Your task to perform on an android device: change text size in settings app Image 0: 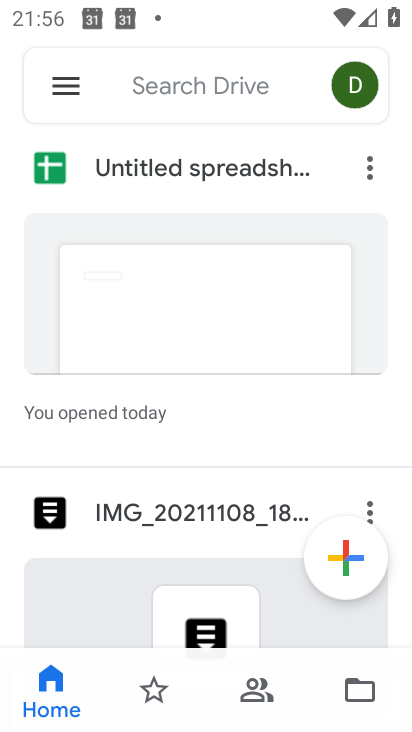
Step 0: press home button
Your task to perform on an android device: change text size in settings app Image 1: 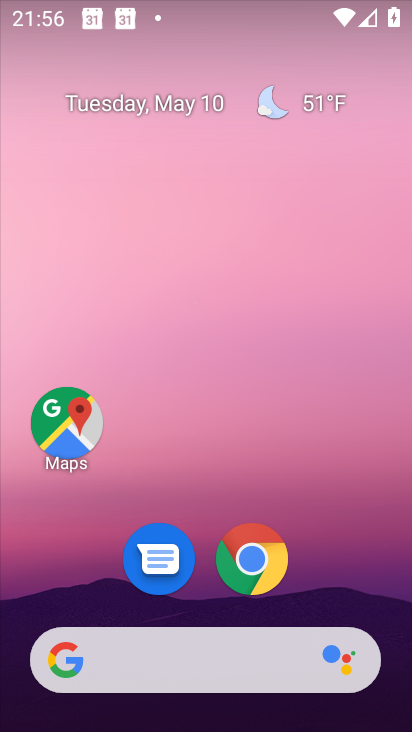
Step 1: drag from (345, 571) to (209, 114)
Your task to perform on an android device: change text size in settings app Image 2: 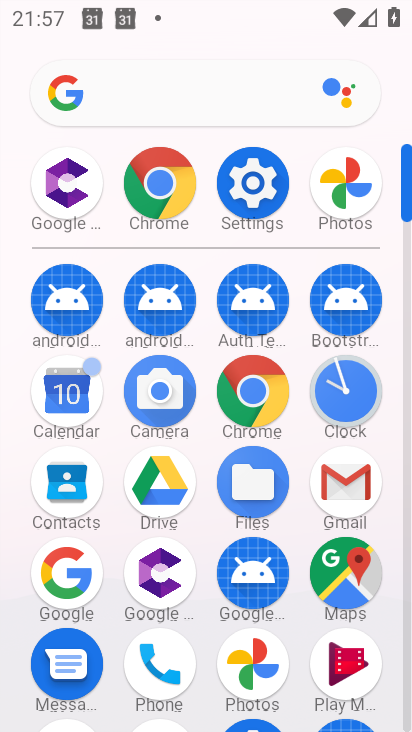
Step 2: click (250, 184)
Your task to perform on an android device: change text size in settings app Image 3: 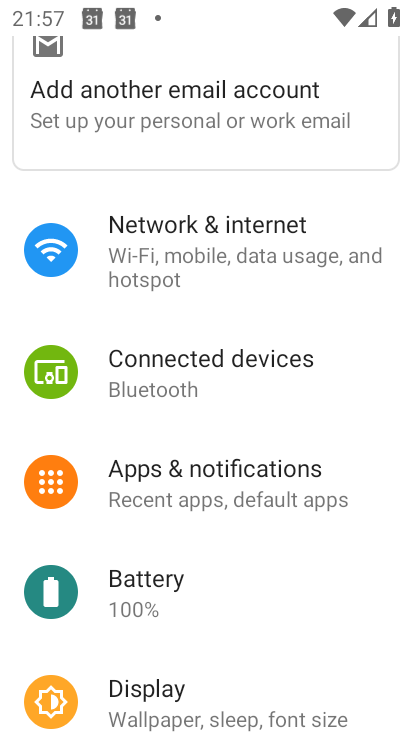
Step 3: drag from (227, 581) to (239, 452)
Your task to perform on an android device: change text size in settings app Image 4: 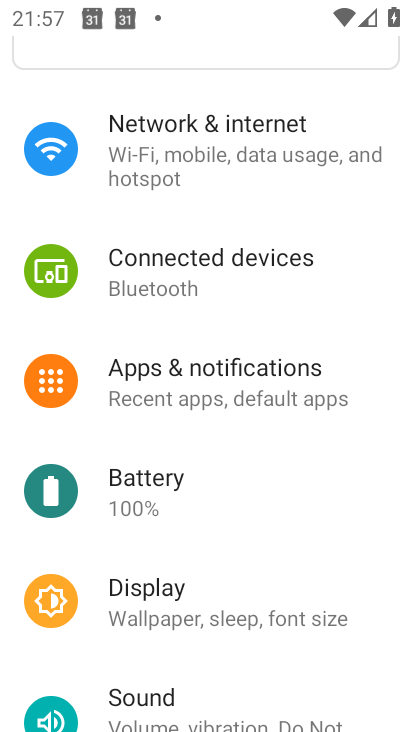
Step 4: drag from (234, 556) to (250, 422)
Your task to perform on an android device: change text size in settings app Image 5: 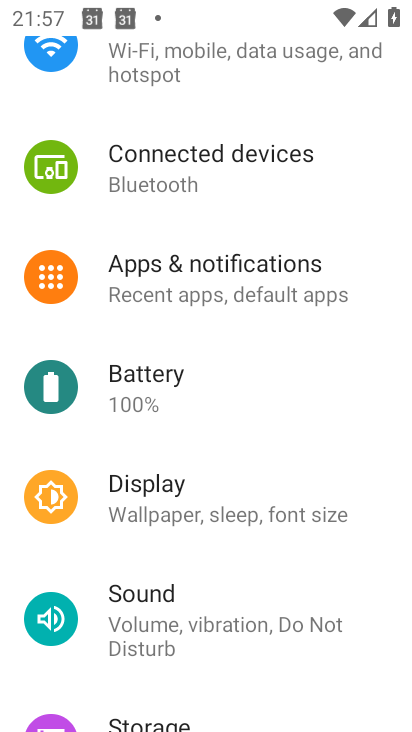
Step 5: drag from (230, 556) to (258, 445)
Your task to perform on an android device: change text size in settings app Image 6: 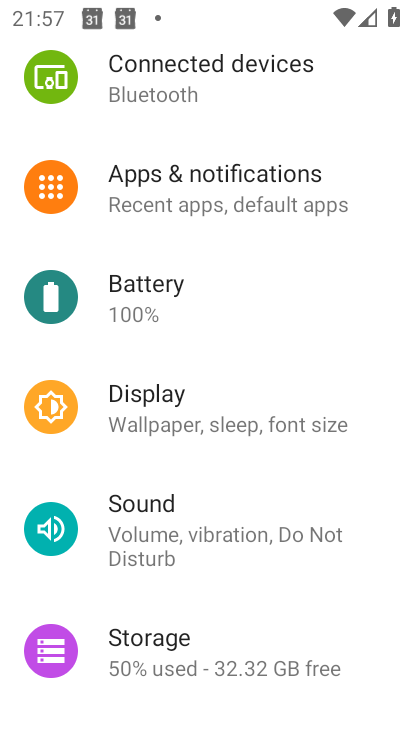
Step 6: drag from (240, 600) to (263, 466)
Your task to perform on an android device: change text size in settings app Image 7: 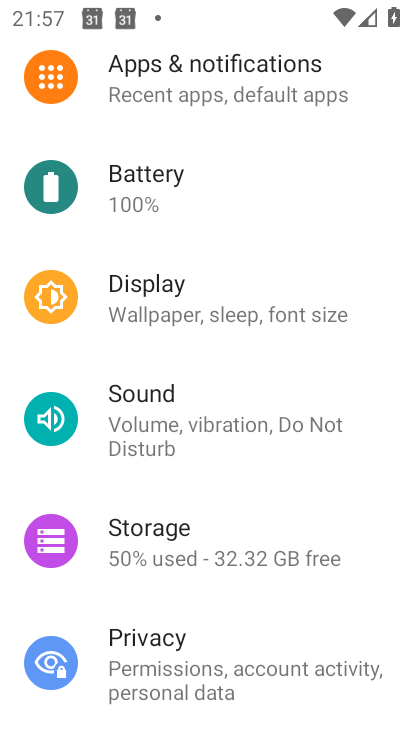
Step 7: drag from (203, 630) to (265, 499)
Your task to perform on an android device: change text size in settings app Image 8: 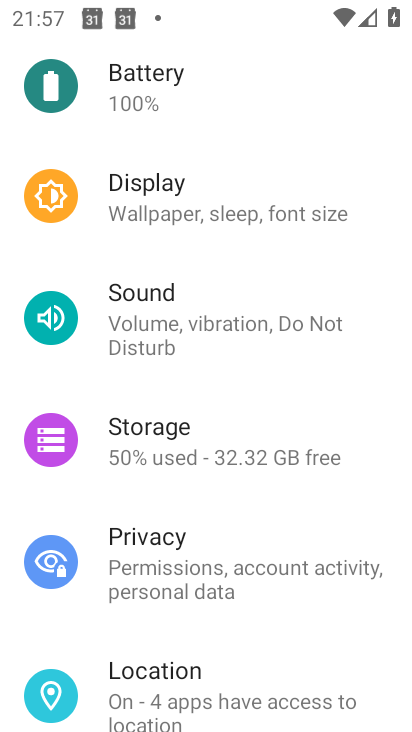
Step 8: drag from (233, 625) to (270, 472)
Your task to perform on an android device: change text size in settings app Image 9: 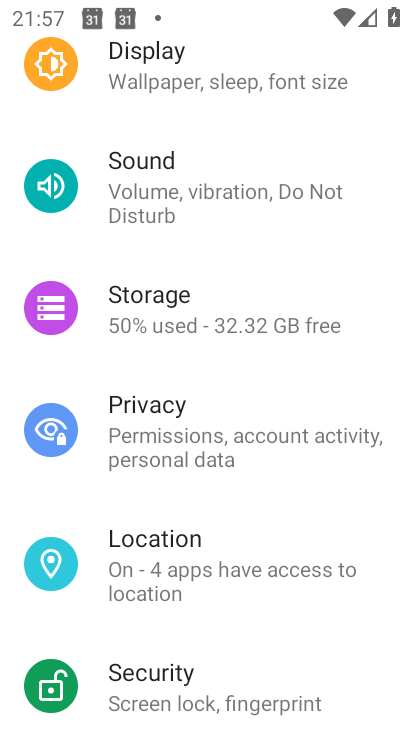
Step 9: drag from (202, 647) to (269, 483)
Your task to perform on an android device: change text size in settings app Image 10: 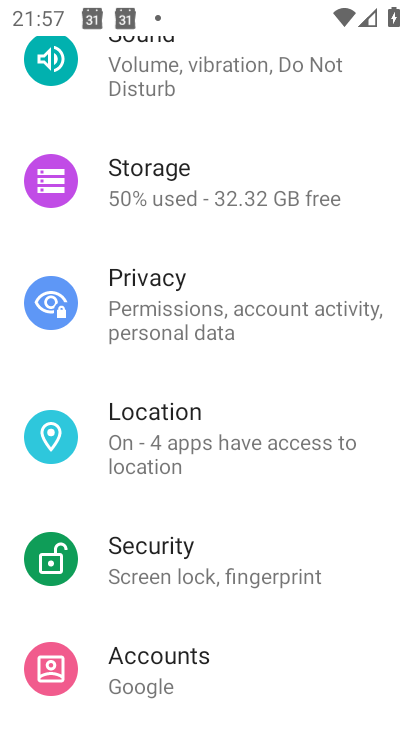
Step 10: drag from (202, 622) to (292, 483)
Your task to perform on an android device: change text size in settings app Image 11: 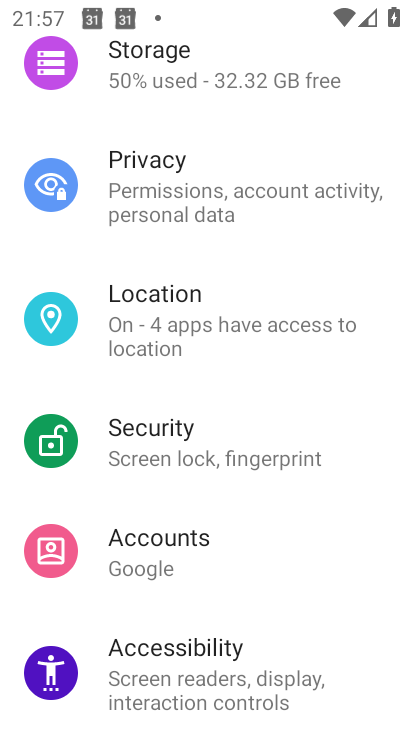
Step 11: drag from (215, 617) to (282, 434)
Your task to perform on an android device: change text size in settings app Image 12: 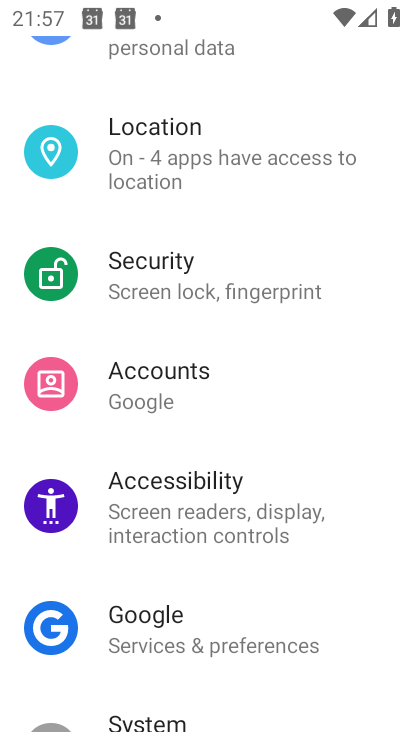
Step 12: click (157, 478)
Your task to perform on an android device: change text size in settings app Image 13: 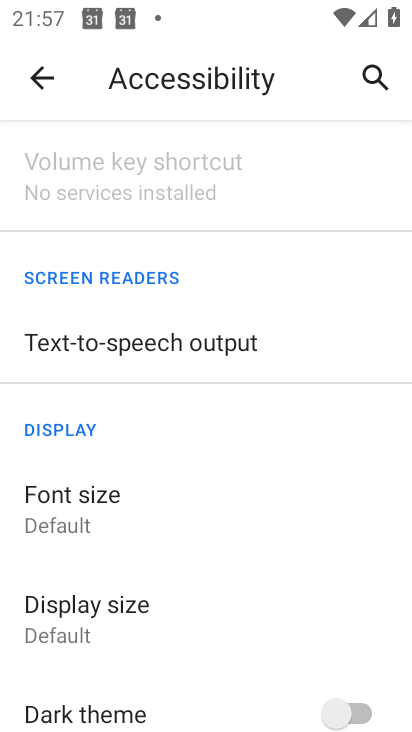
Step 13: click (101, 501)
Your task to perform on an android device: change text size in settings app Image 14: 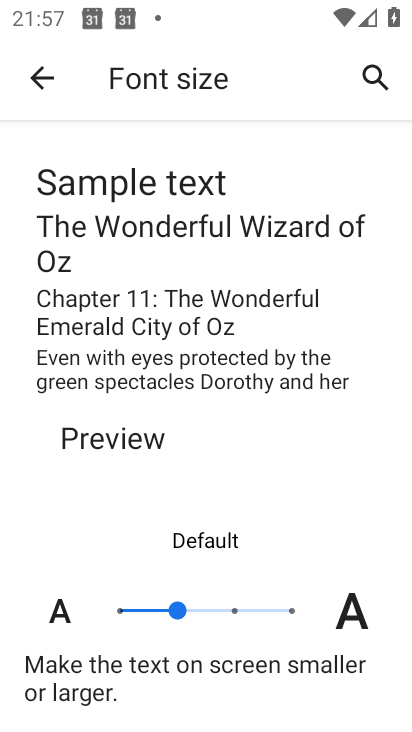
Step 14: click (232, 610)
Your task to perform on an android device: change text size in settings app Image 15: 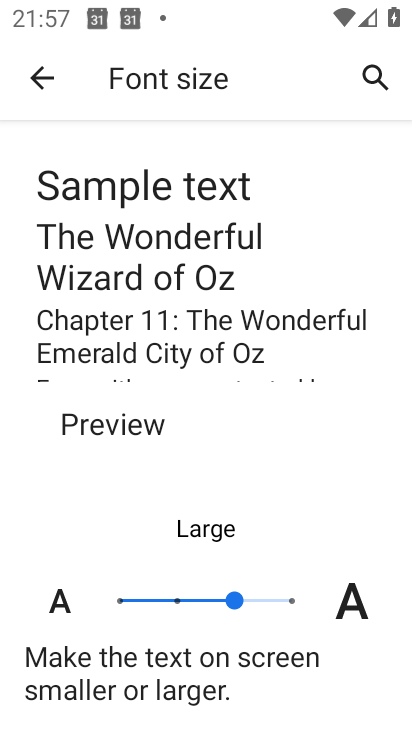
Step 15: task complete